Your task to perform on an android device: Turn off the flashlight Image 0: 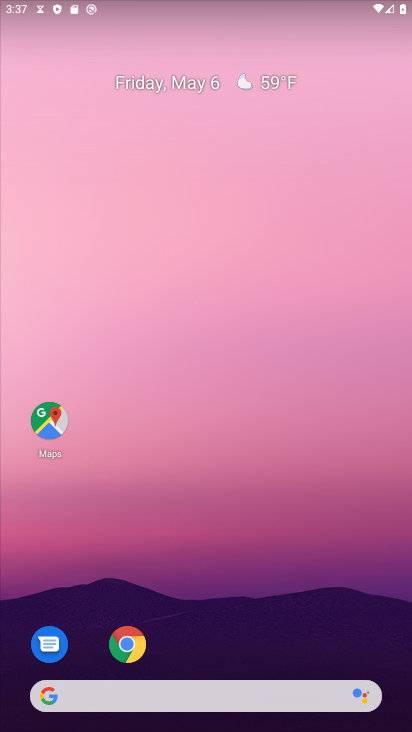
Step 0: drag from (244, 624) to (200, 43)
Your task to perform on an android device: Turn off the flashlight Image 1: 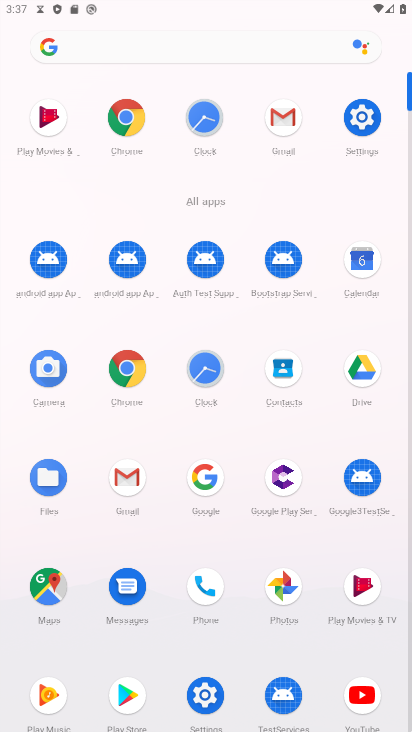
Step 1: click (203, 695)
Your task to perform on an android device: Turn off the flashlight Image 2: 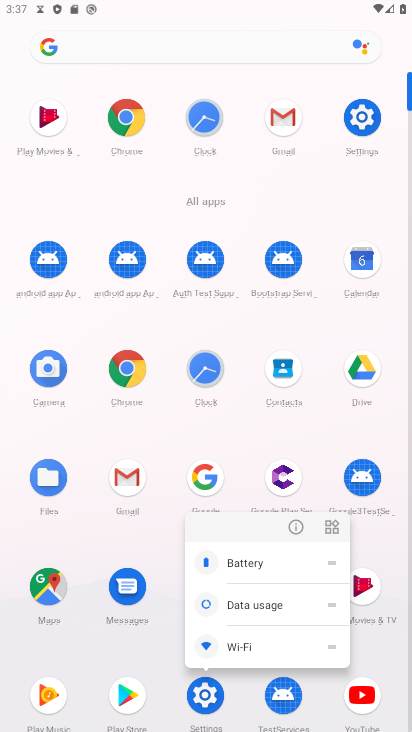
Step 2: click (203, 694)
Your task to perform on an android device: Turn off the flashlight Image 3: 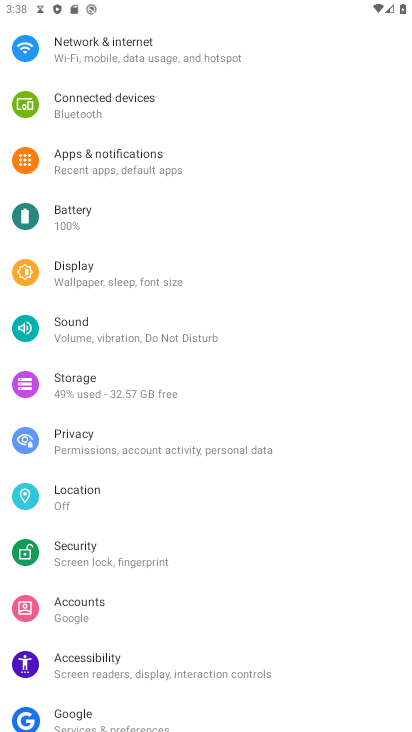
Step 3: drag from (180, 412) to (216, 532)
Your task to perform on an android device: Turn off the flashlight Image 4: 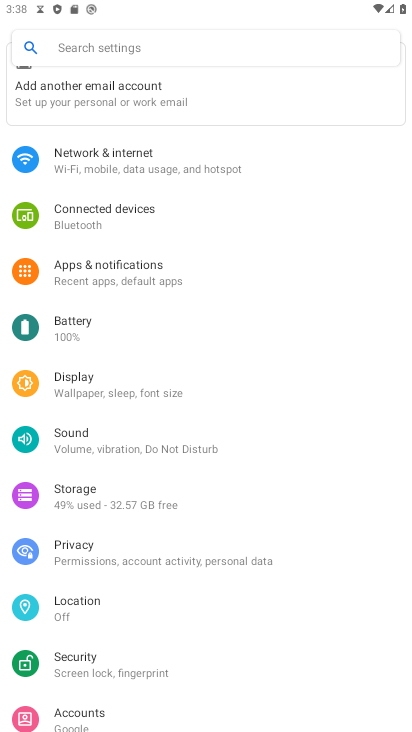
Step 4: drag from (206, 422) to (220, 547)
Your task to perform on an android device: Turn off the flashlight Image 5: 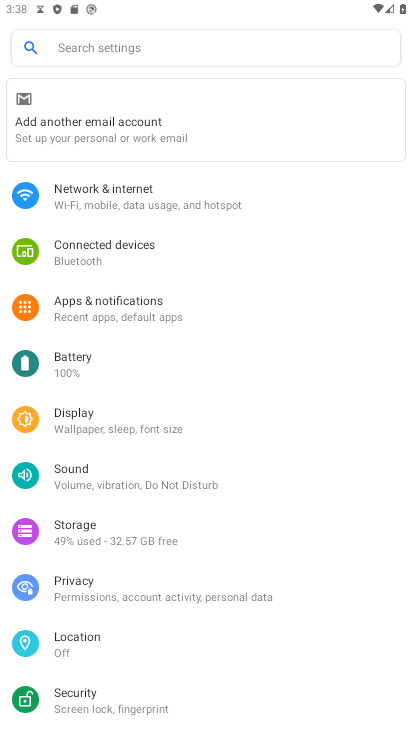
Step 5: click (132, 436)
Your task to perform on an android device: Turn off the flashlight Image 6: 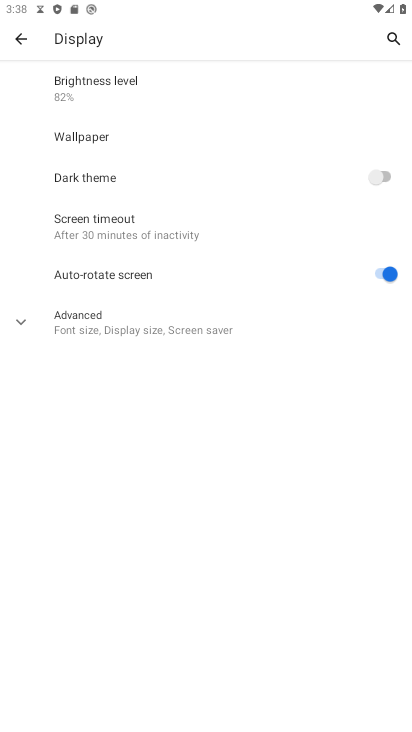
Step 6: press back button
Your task to perform on an android device: Turn off the flashlight Image 7: 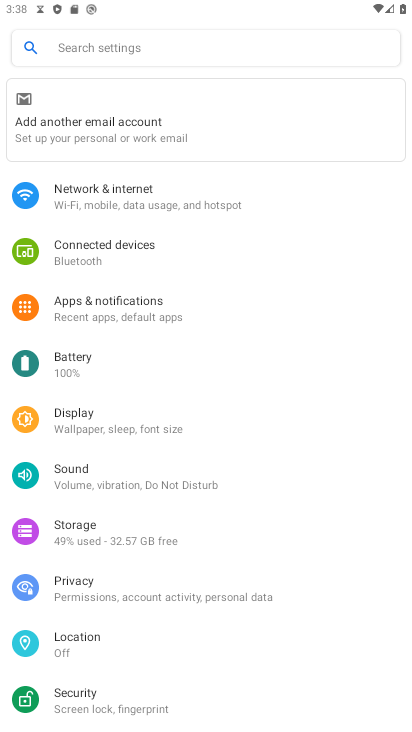
Step 7: drag from (102, 642) to (170, 555)
Your task to perform on an android device: Turn off the flashlight Image 8: 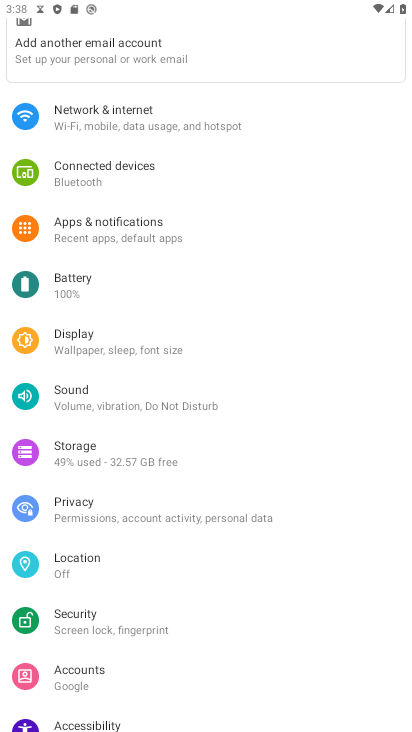
Step 8: drag from (143, 635) to (210, 523)
Your task to perform on an android device: Turn off the flashlight Image 9: 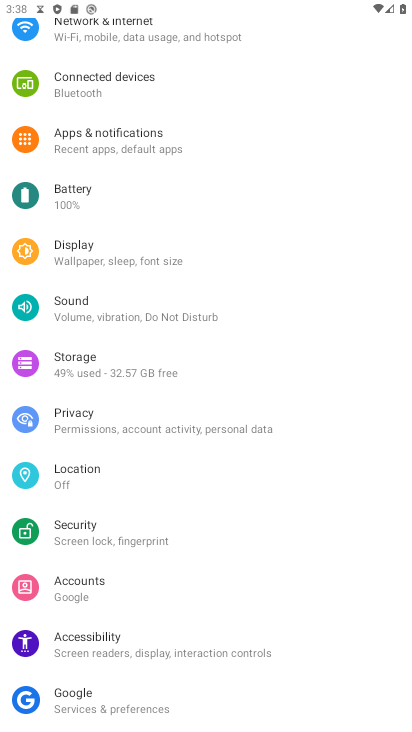
Step 9: drag from (151, 578) to (235, 391)
Your task to perform on an android device: Turn off the flashlight Image 10: 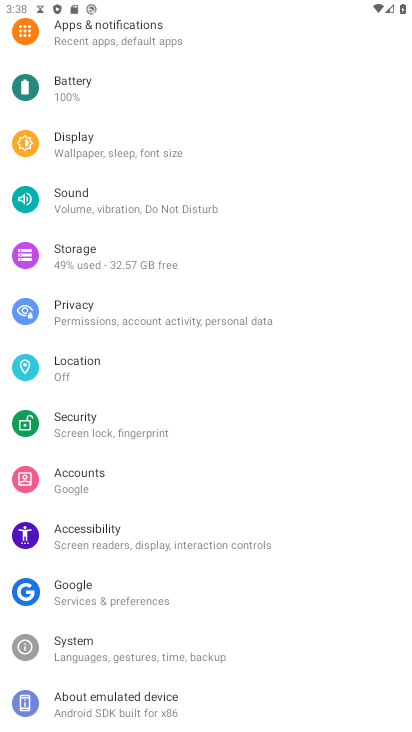
Step 10: drag from (181, 614) to (207, 548)
Your task to perform on an android device: Turn off the flashlight Image 11: 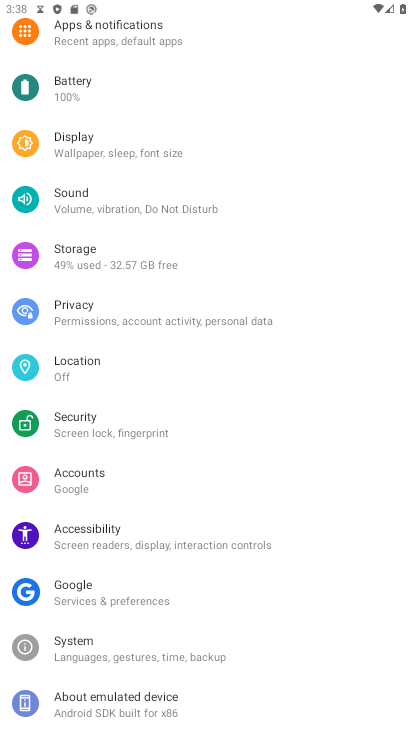
Step 11: click (115, 530)
Your task to perform on an android device: Turn off the flashlight Image 12: 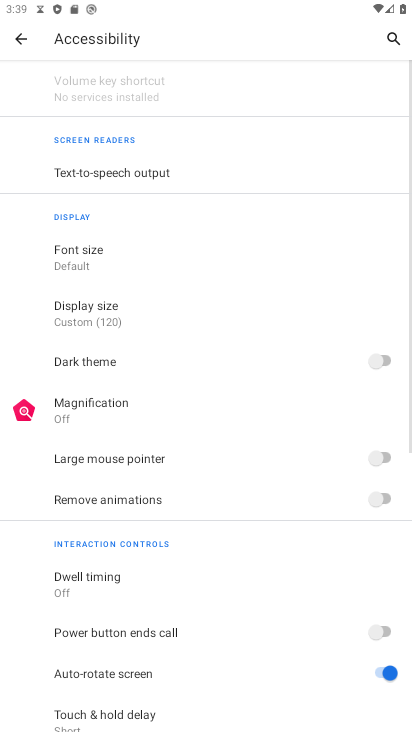
Step 12: task complete